Your task to perform on an android device: Open privacy settings Image 0: 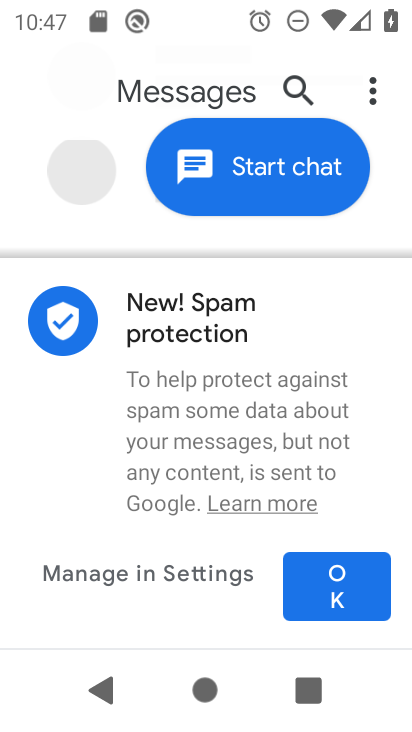
Step 0: press home button
Your task to perform on an android device: Open privacy settings Image 1: 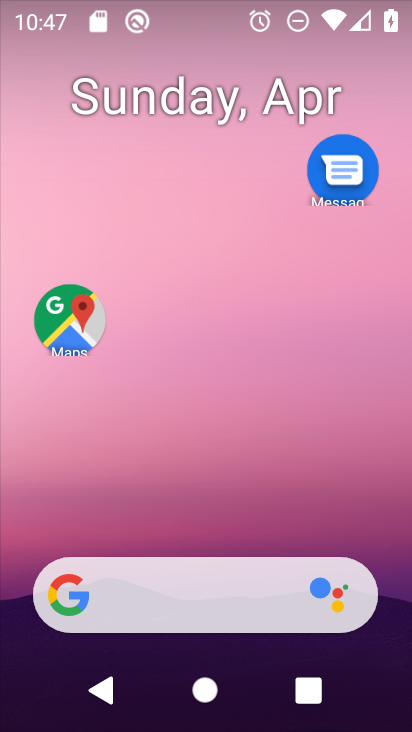
Step 1: drag from (174, 409) to (159, 123)
Your task to perform on an android device: Open privacy settings Image 2: 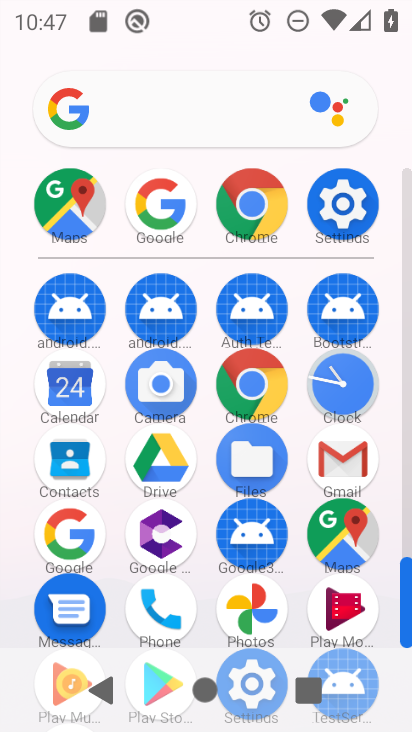
Step 2: click (340, 204)
Your task to perform on an android device: Open privacy settings Image 3: 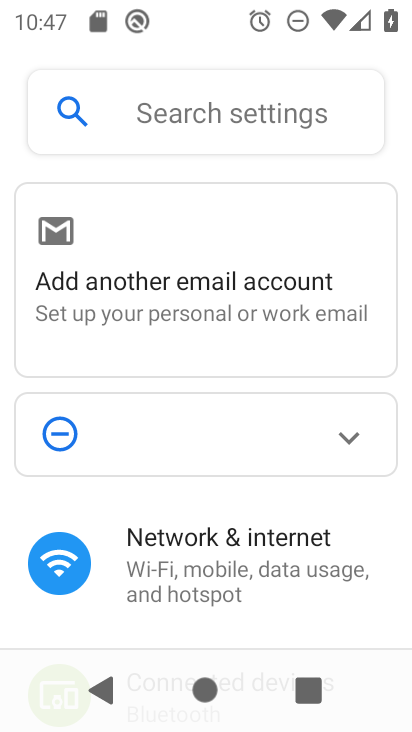
Step 3: drag from (228, 548) to (222, 30)
Your task to perform on an android device: Open privacy settings Image 4: 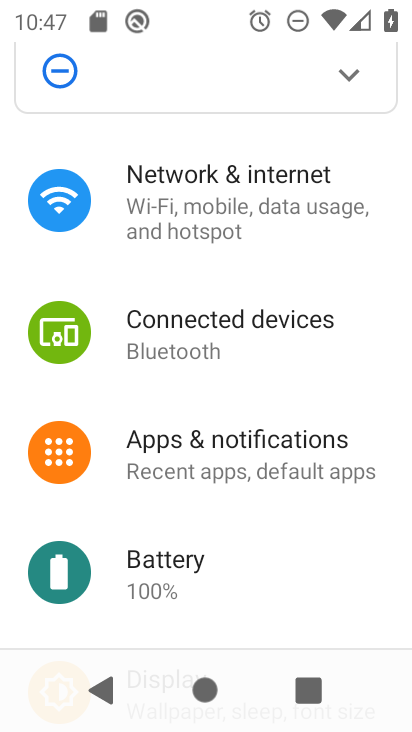
Step 4: drag from (196, 570) to (277, 89)
Your task to perform on an android device: Open privacy settings Image 5: 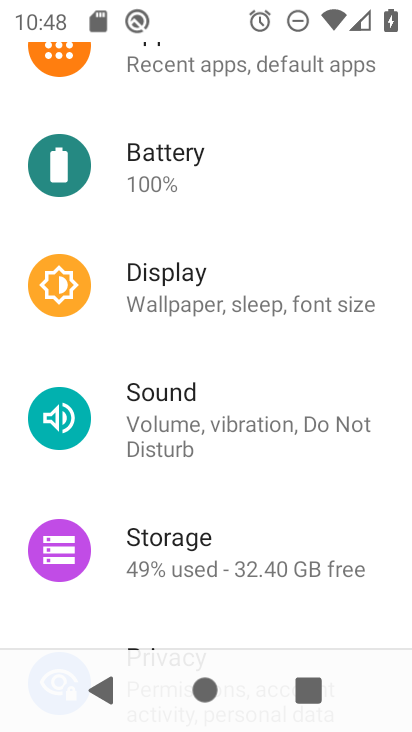
Step 5: drag from (181, 602) to (215, 176)
Your task to perform on an android device: Open privacy settings Image 6: 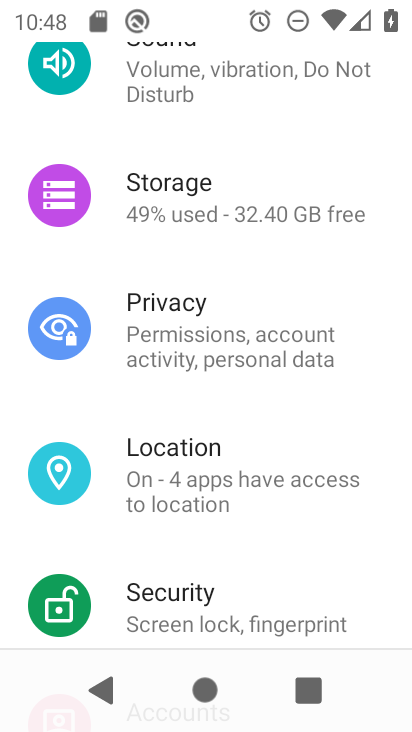
Step 6: click (203, 321)
Your task to perform on an android device: Open privacy settings Image 7: 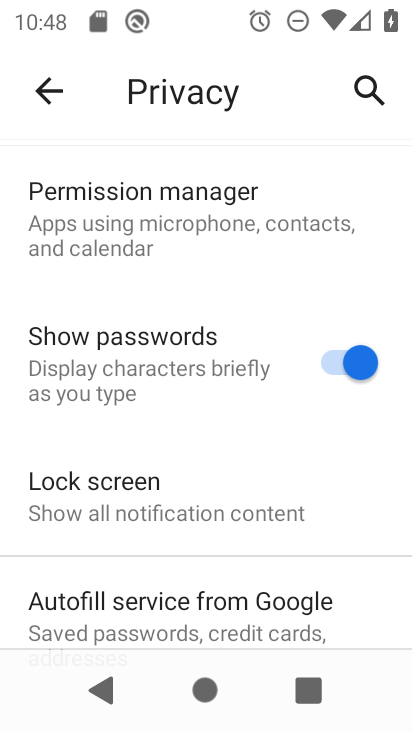
Step 7: task complete